Your task to perform on an android device: Open Google Chrome Image 0: 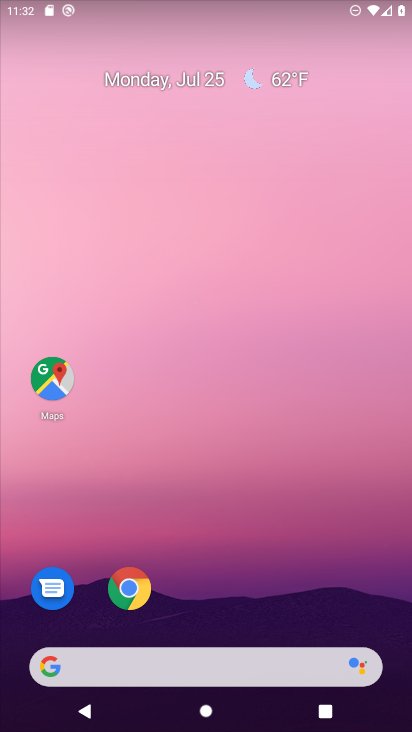
Step 0: press home button
Your task to perform on an android device: Open Google Chrome Image 1: 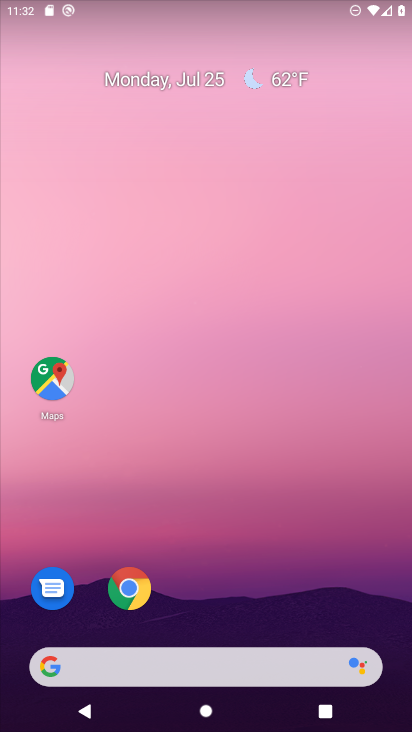
Step 1: click (119, 585)
Your task to perform on an android device: Open Google Chrome Image 2: 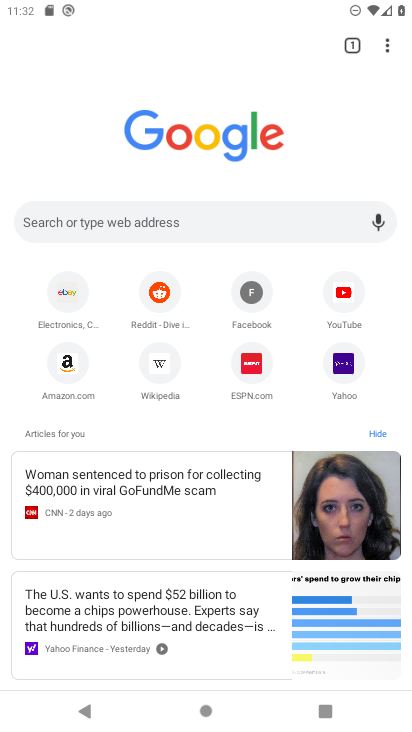
Step 2: task complete